Your task to perform on an android device: delete browsing data in the chrome app Image 0: 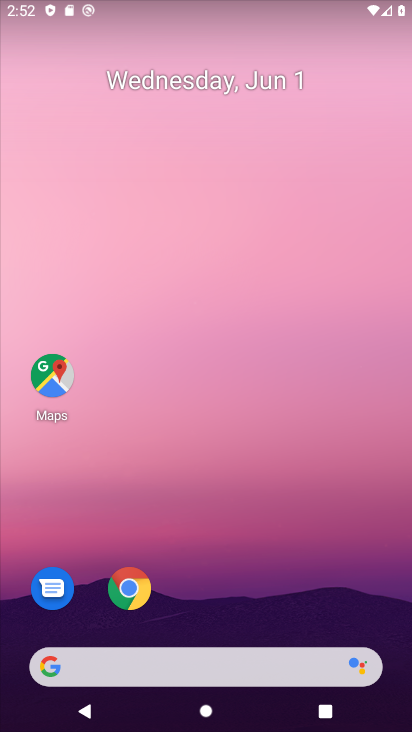
Step 0: click (124, 602)
Your task to perform on an android device: delete browsing data in the chrome app Image 1: 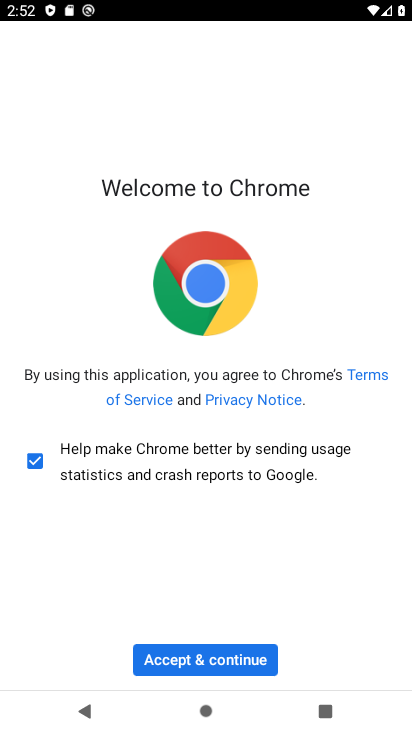
Step 1: click (238, 639)
Your task to perform on an android device: delete browsing data in the chrome app Image 2: 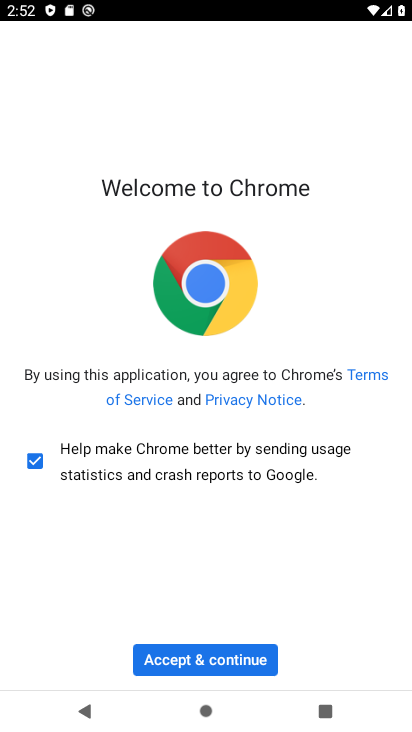
Step 2: click (238, 654)
Your task to perform on an android device: delete browsing data in the chrome app Image 3: 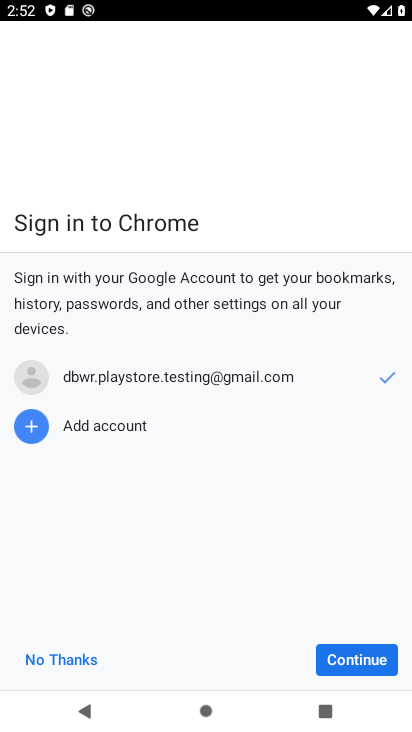
Step 3: click (338, 657)
Your task to perform on an android device: delete browsing data in the chrome app Image 4: 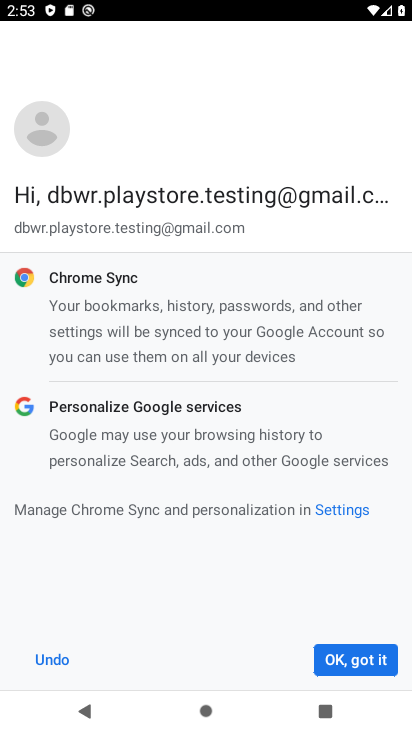
Step 4: click (359, 652)
Your task to perform on an android device: delete browsing data in the chrome app Image 5: 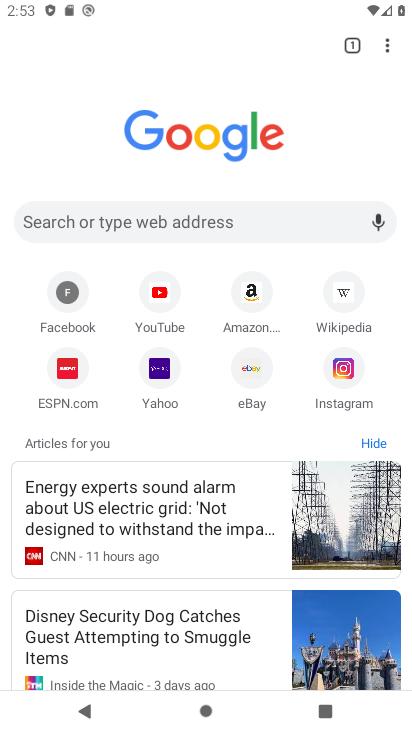
Step 5: click (387, 43)
Your task to perform on an android device: delete browsing data in the chrome app Image 6: 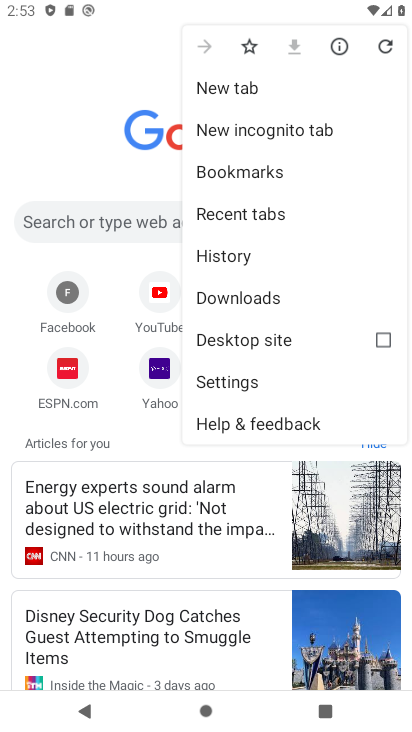
Step 6: click (253, 258)
Your task to perform on an android device: delete browsing data in the chrome app Image 7: 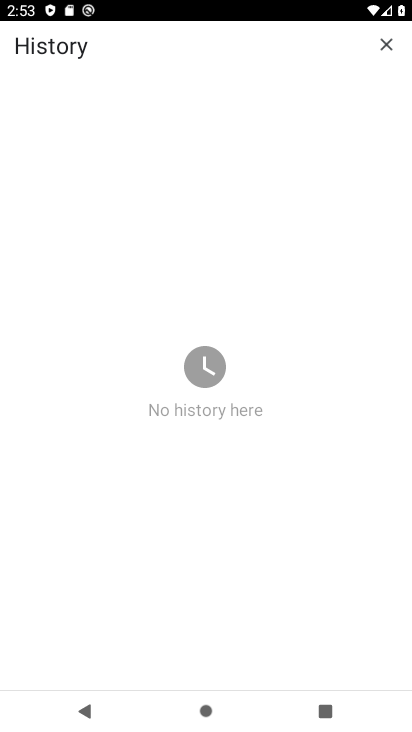
Step 7: task complete